Your task to perform on an android device: Open the web browser Image 0: 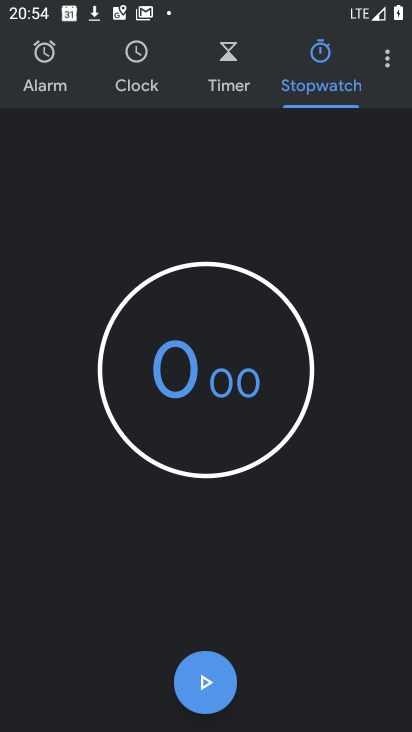
Step 0: press home button
Your task to perform on an android device: Open the web browser Image 1: 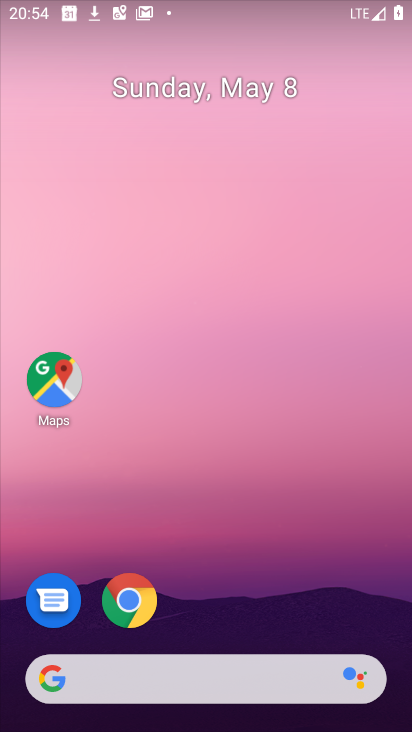
Step 1: drag from (288, 713) to (264, 230)
Your task to perform on an android device: Open the web browser Image 2: 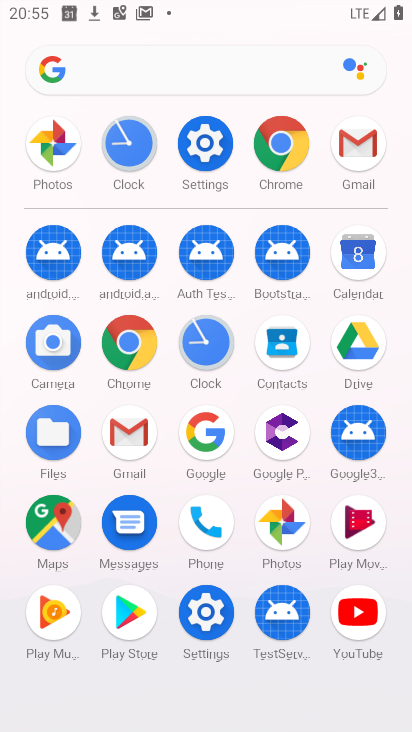
Step 2: click (280, 152)
Your task to perform on an android device: Open the web browser Image 3: 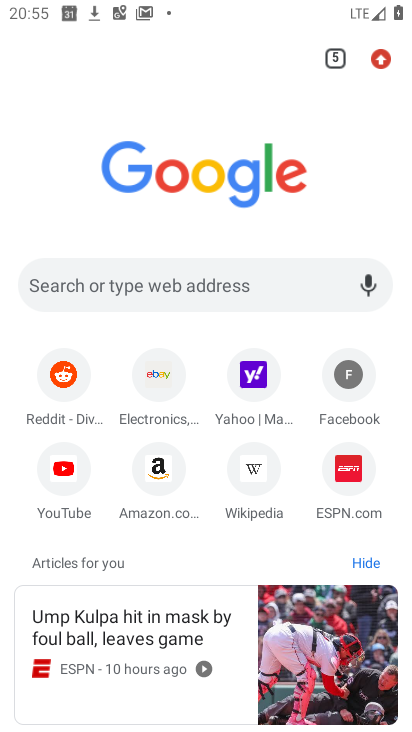
Step 3: click (144, 294)
Your task to perform on an android device: Open the web browser Image 4: 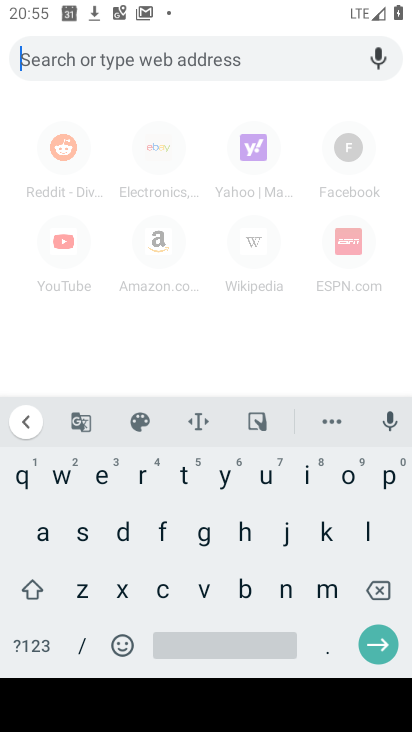
Step 4: task complete